Your task to perform on an android device: Open calendar and show me the first week of next month Image 0: 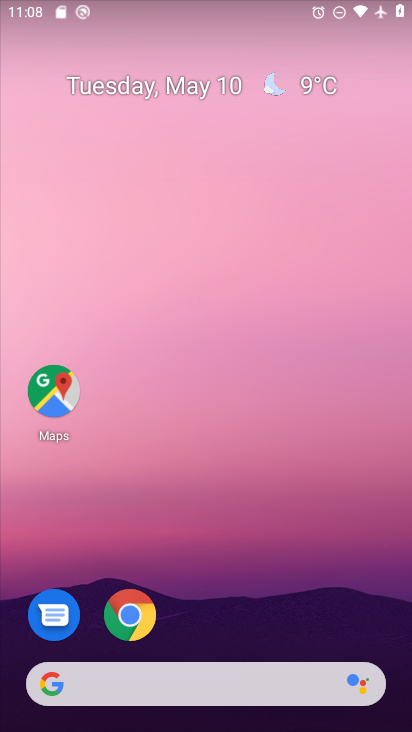
Step 0: drag from (385, 644) to (232, 169)
Your task to perform on an android device: Open calendar and show me the first week of next month Image 1: 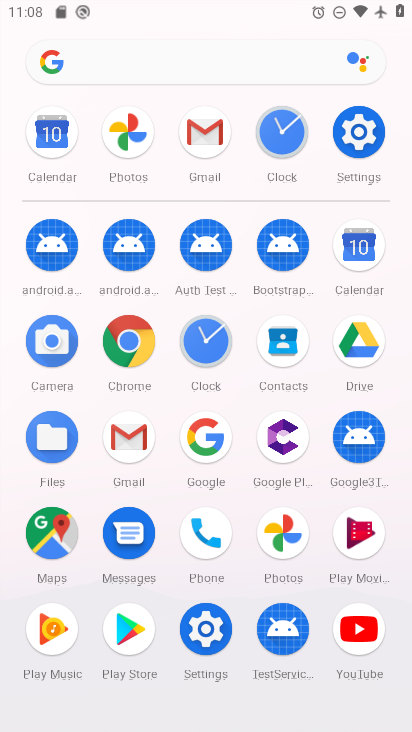
Step 1: click (357, 242)
Your task to perform on an android device: Open calendar and show me the first week of next month Image 2: 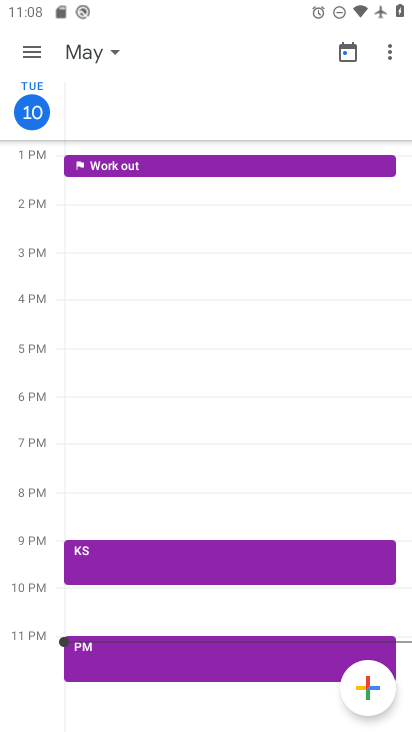
Step 2: click (28, 53)
Your task to perform on an android device: Open calendar and show me the first week of next month Image 3: 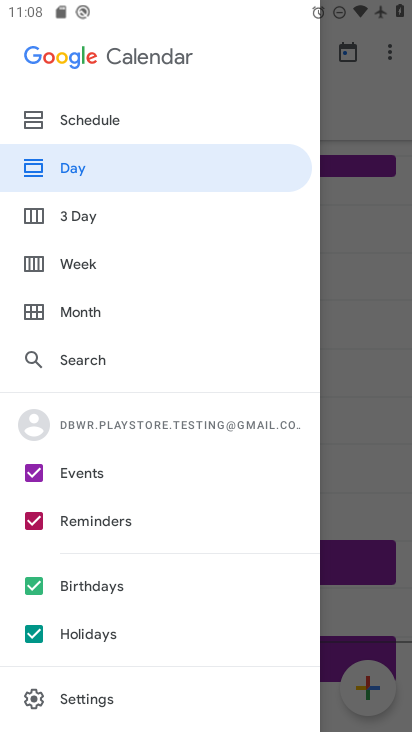
Step 3: click (76, 261)
Your task to perform on an android device: Open calendar and show me the first week of next month Image 4: 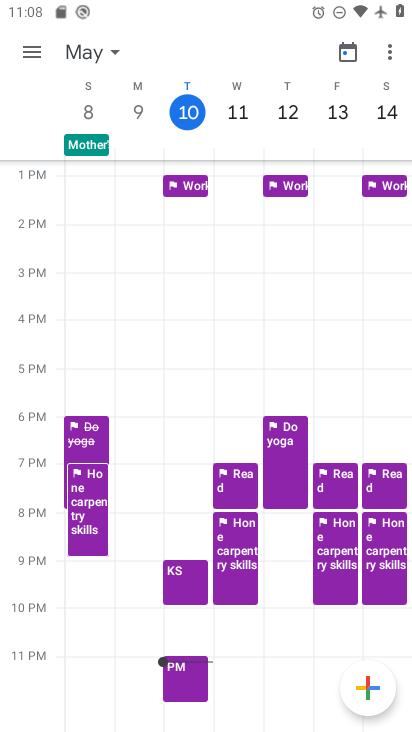
Step 4: click (43, 46)
Your task to perform on an android device: Open calendar and show me the first week of next month Image 5: 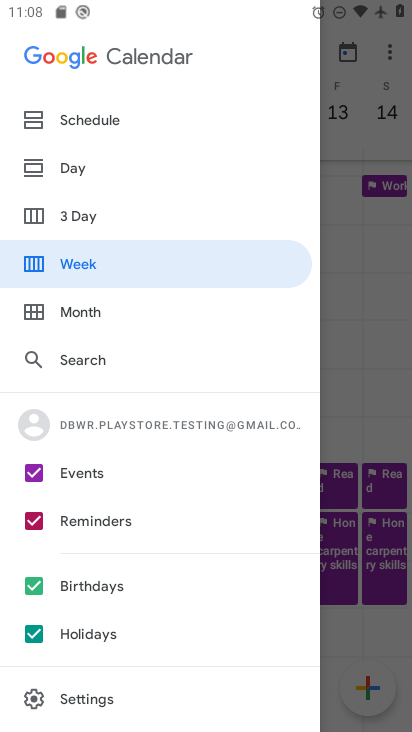
Step 5: click (123, 258)
Your task to perform on an android device: Open calendar and show me the first week of next month Image 6: 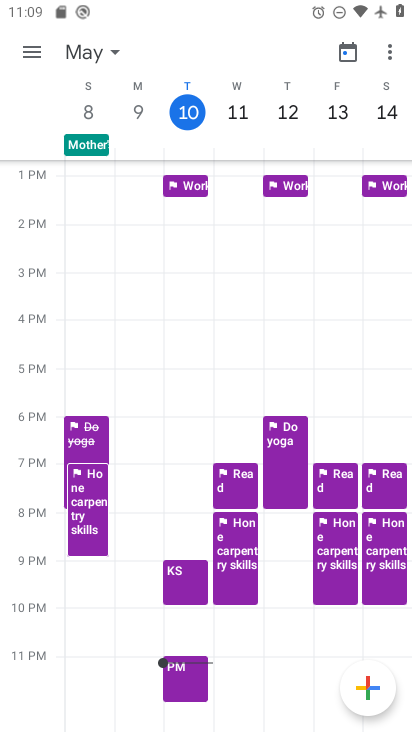
Step 6: click (113, 52)
Your task to perform on an android device: Open calendar and show me the first week of next month Image 7: 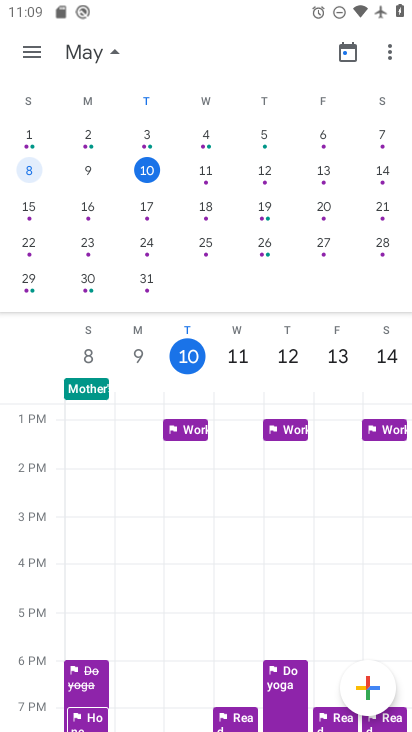
Step 7: drag from (377, 193) to (10, 150)
Your task to perform on an android device: Open calendar and show me the first week of next month Image 8: 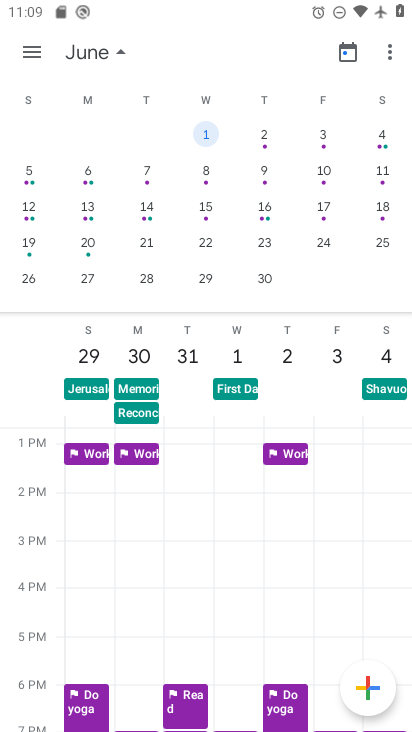
Step 8: click (207, 131)
Your task to perform on an android device: Open calendar and show me the first week of next month Image 9: 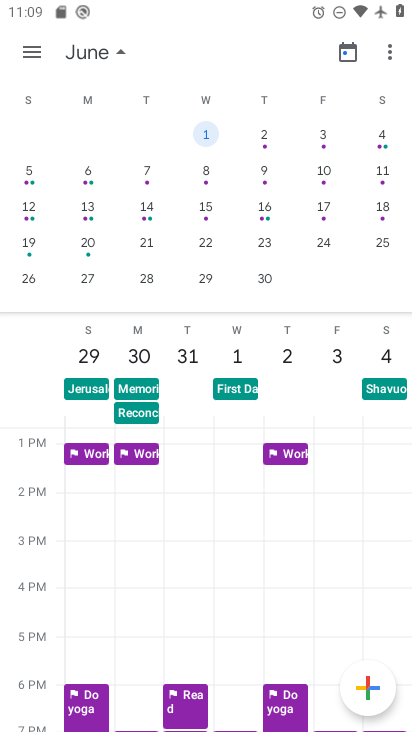
Step 9: task complete